Your task to perform on an android device: turn pop-ups on in chrome Image 0: 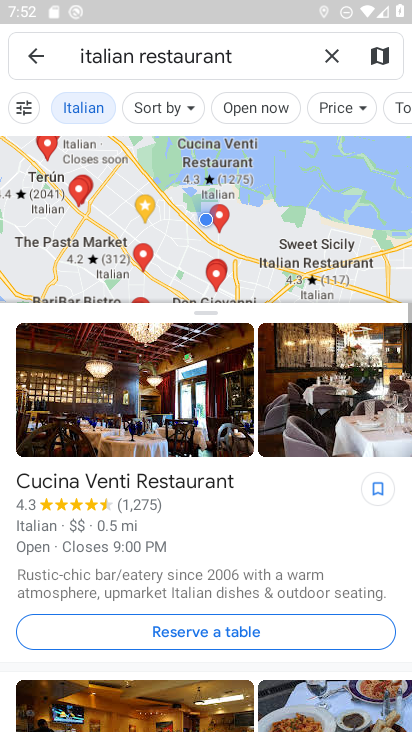
Step 0: press home button
Your task to perform on an android device: turn pop-ups on in chrome Image 1: 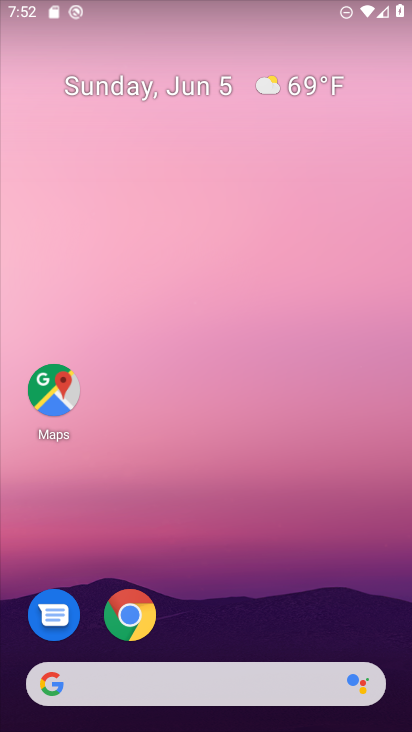
Step 1: drag from (189, 639) to (201, 112)
Your task to perform on an android device: turn pop-ups on in chrome Image 2: 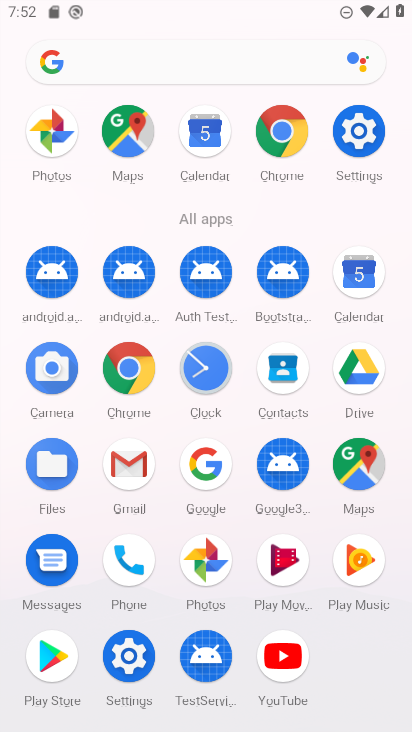
Step 2: click (357, 140)
Your task to perform on an android device: turn pop-ups on in chrome Image 3: 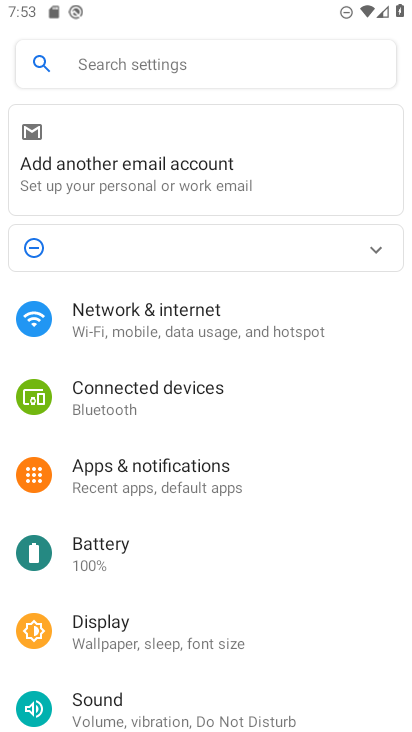
Step 3: drag from (169, 661) to (216, 495)
Your task to perform on an android device: turn pop-ups on in chrome Image 4: 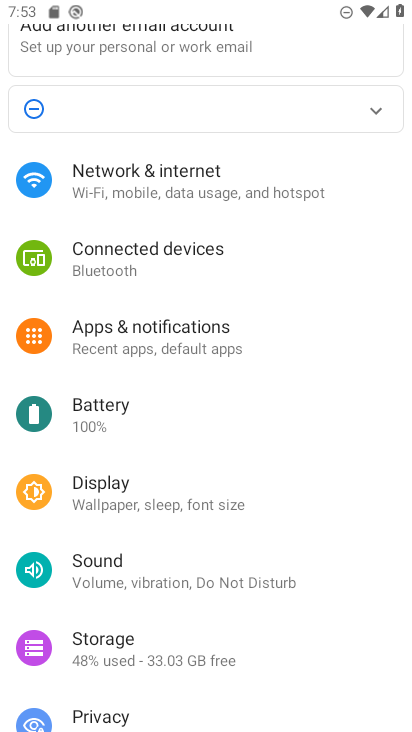
Step 4: click (149, 337)
Your task to perform on an android device: turn pop-ups on in chrome Image 5: 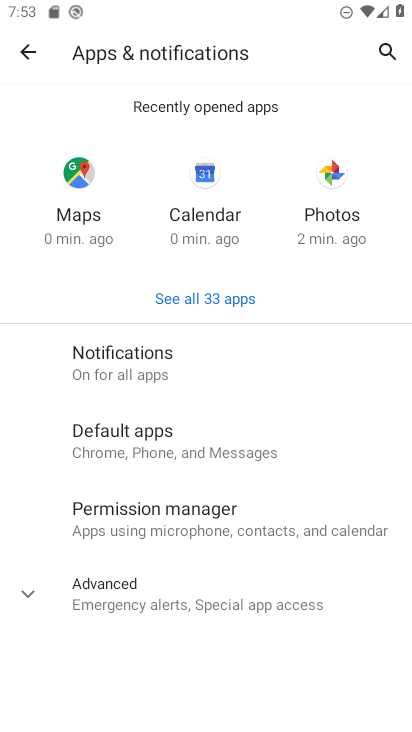
Step 5: click (217, 604)
Your task to perform on an android device: turn pop-ups on in chrome Image 6: 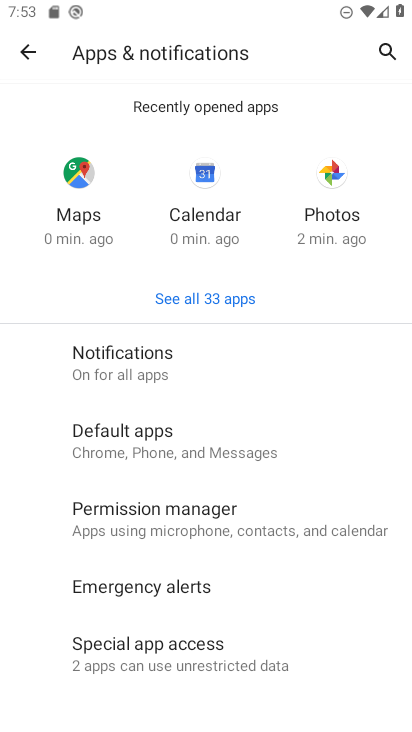
Step 6: click (156, 657)
Your task to perform on an android device: turn pop-ups on in chrome Image 7: 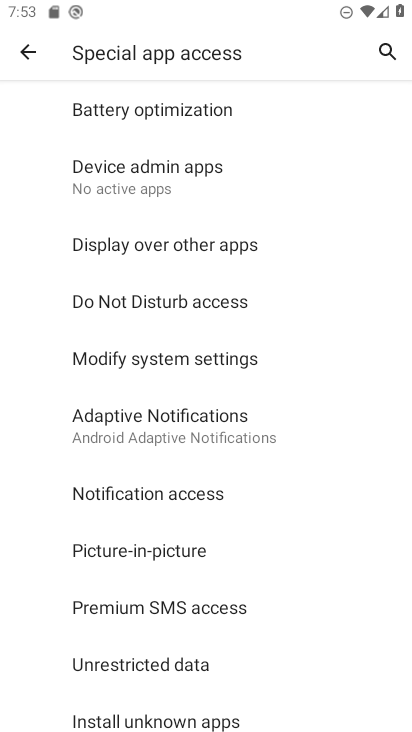
Step 7: click (168, 553)
Your task to perform on an android device: turn pop-ups on in chrome Image 8: 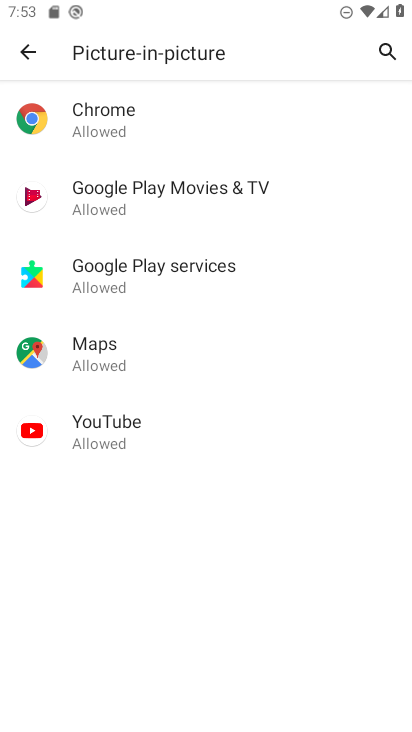
Step 8: click (100, 127)
Your task to perform on an android device: turn pop-ups on in chrome Image 9: 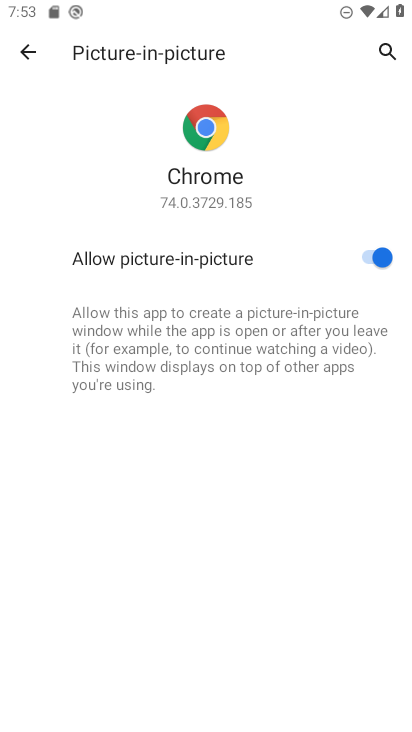
Step 9: click (372, 263)
Your task to perform on an android device: turn pop-ups on in chrome Image 10: 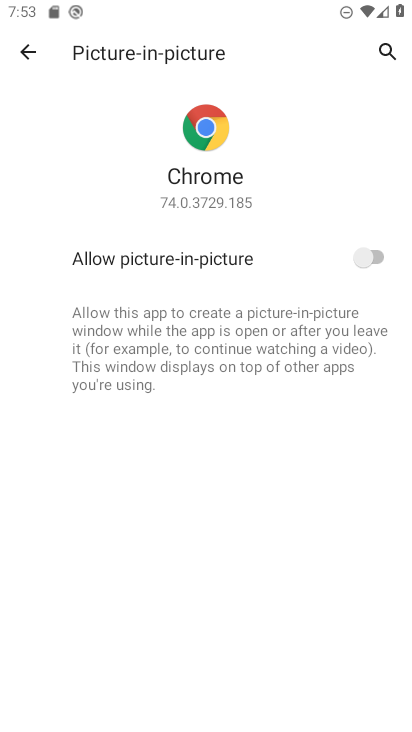
Step 10: task complete